Your task to perform on an android device: Go to internet settings Image 0: 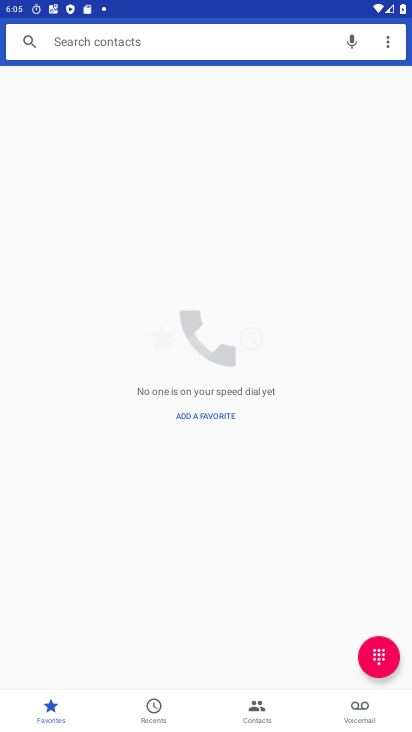
Step 0: press home button
Your task to perform on an android device: Go to internet settings Image 1: 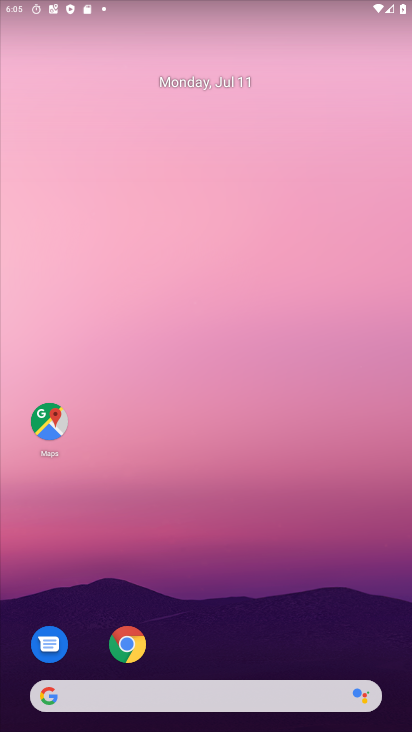
Step 1: drag from (219, 696) to (10, 0)
Your task to perform on an android device: Go to internet settings Image 2: 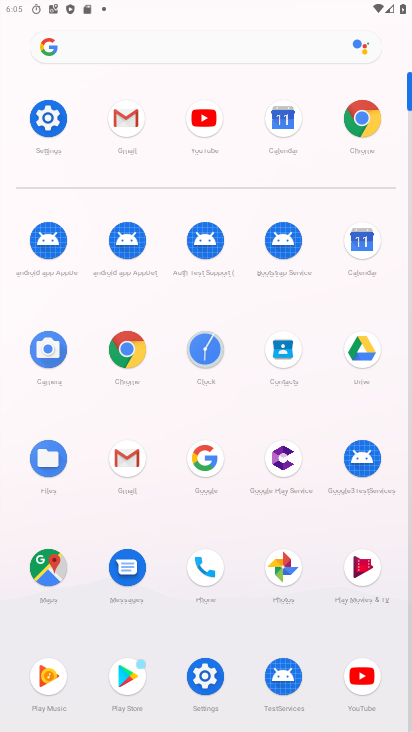
Step 2: click (38, 118)
Your task to perform on an android device: Go to internet settings Image 3: 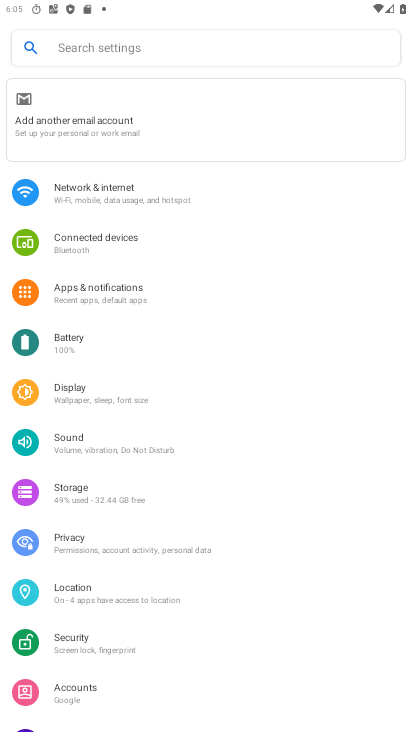
Step 3: click (155, 679)
Your task to perform on an android device: Go to internet settings Image 4: 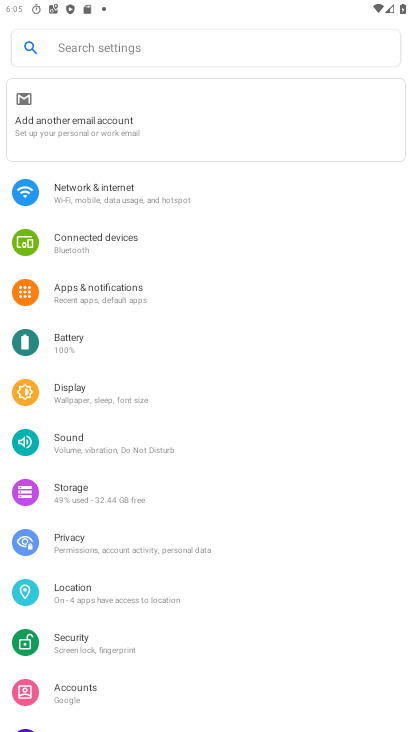
Step 4: click (113, 188)
Your task to perform on an android device: Go to internet settings Image 5: 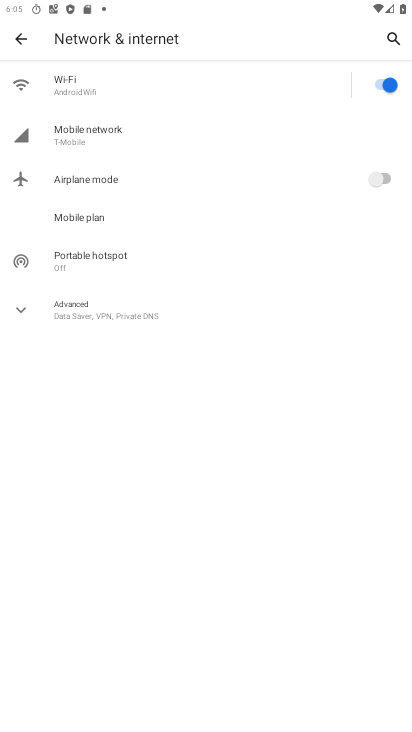
Step 5: click (107, 140)
Your task to perform on an android device: Go to internet settings Image 6: 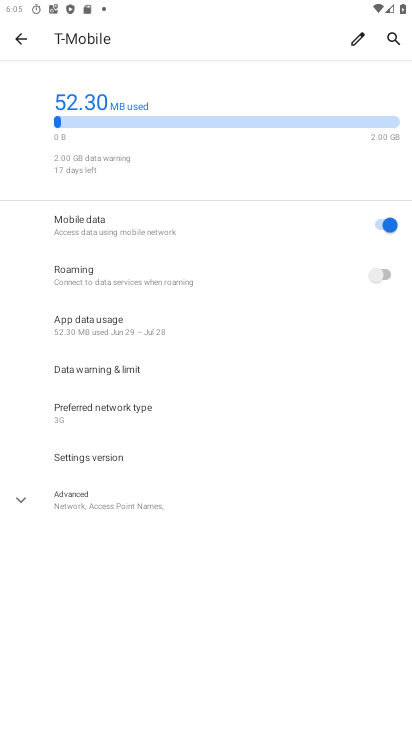
Step 6: task complete